Your task to perform on an android device: show emergency info Image 0: 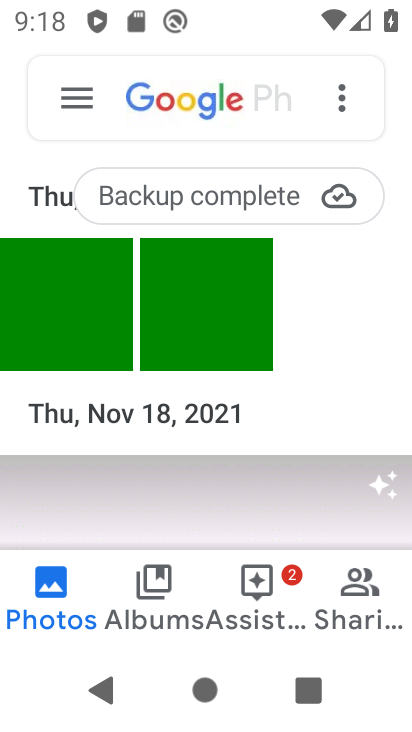
Step 0: press home button
Your task to perform on an android device: show emergency info Image 1: 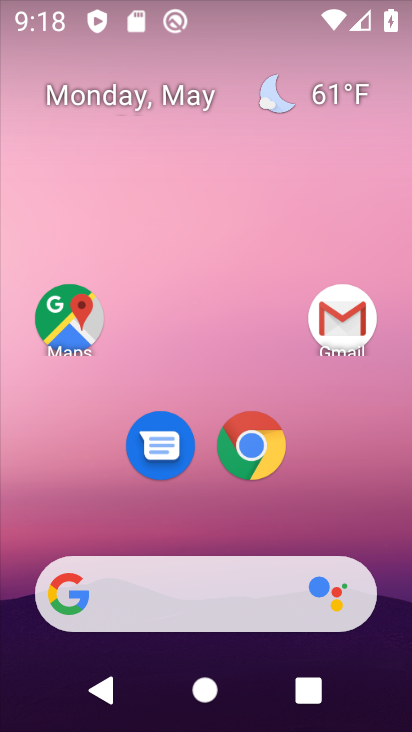
Step 1: drag from (372, 517) to (398, 118)
Your task to perform on an android device: show emergency info Image 2: 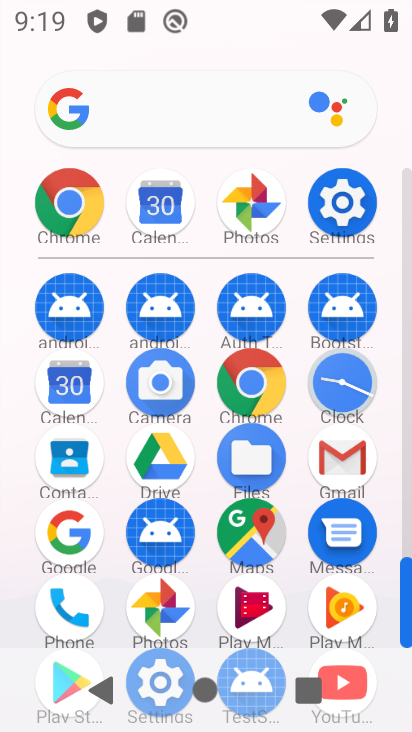
Step 2: click (338, 198)
Your task to perform on an android device: show emergency info Image 3: 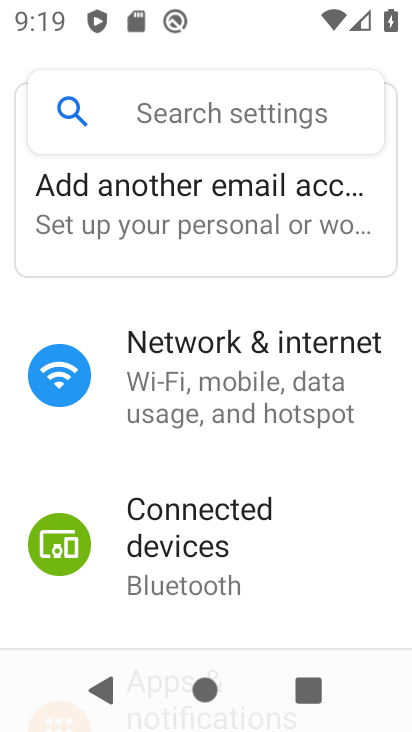
Step 3: drag from (360, 564) to (376, 462)
Your task to perform on an android device: show emergency info Image 4: 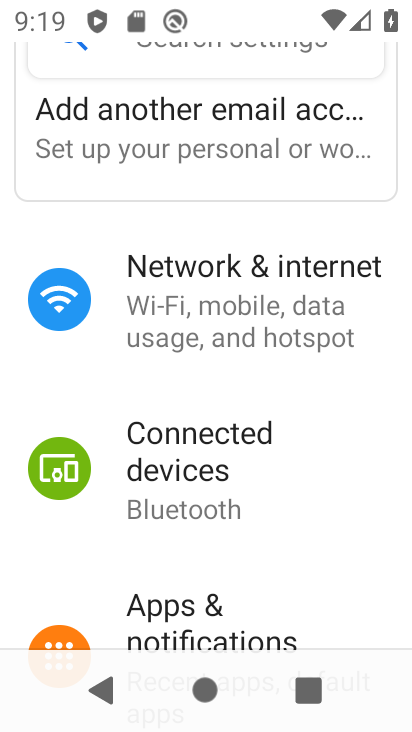
Step 4: drag from (355, 575) to (359, 436)
Your task to perform on an android device: show emergency info Image 5: 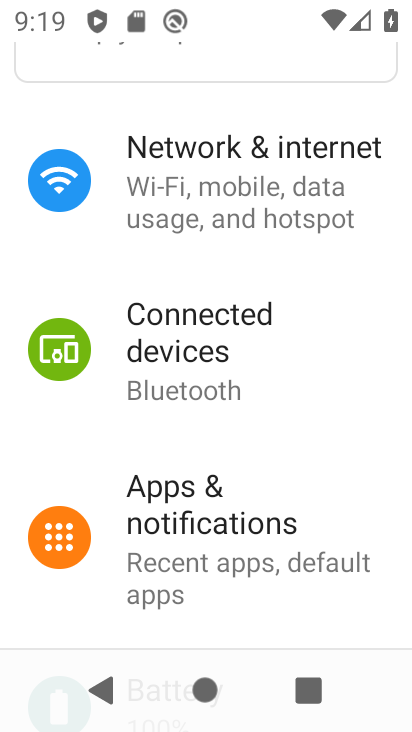
Step 5: drag from (352, 608) to (350, 437)
Your task to perform on an android device: show emergency info Image 6: 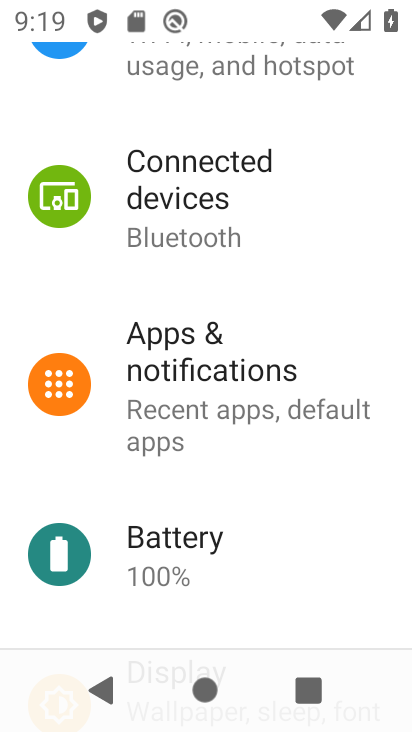
Step 6: drag from (339, 563) to (344, 439)
Your task to perform on an android device: show emergency info Image 7: 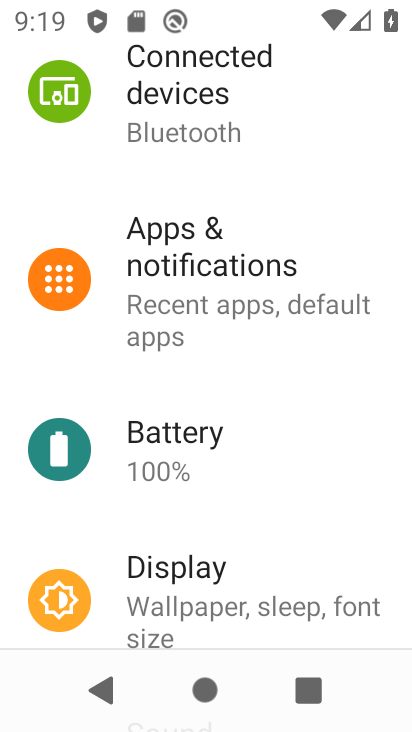
Step 7: drag from (349, 560) to (344, 476)
Your task to perform on an android device: show emergency info Image 8: 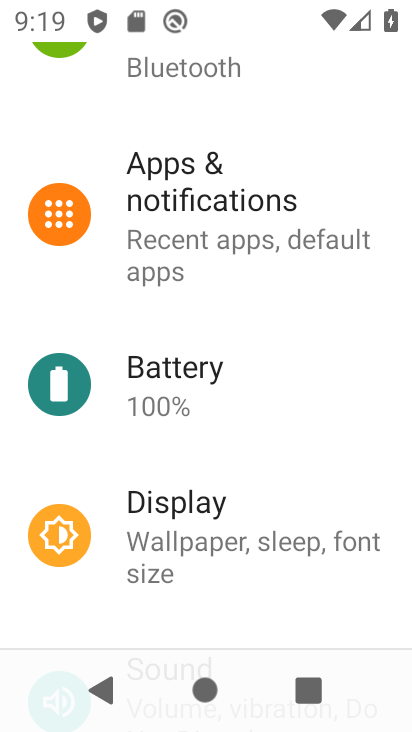
Step 8: drag from (378, 488) to (376, 371)
Your task to perform on an android device: show emergency info Image 9: 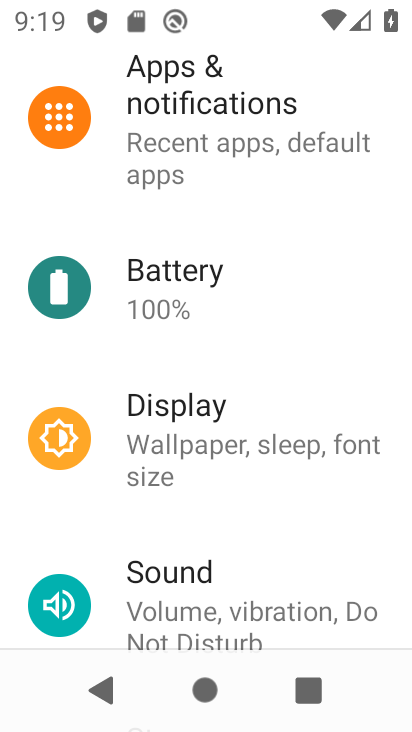
Step 9: drag from (391, 515) to (387, 406)
Your task to perform on an android device: show emergency info Image 10: 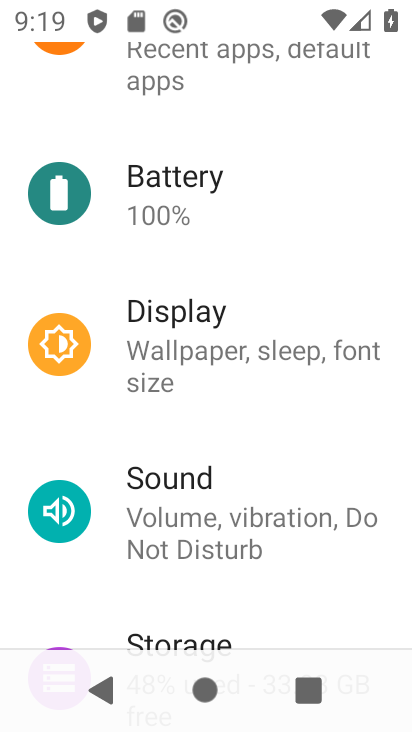
Step 10: drag from (400, 484) to (386, 347)
Your task to perform on an android device: show emergency info Image 11: 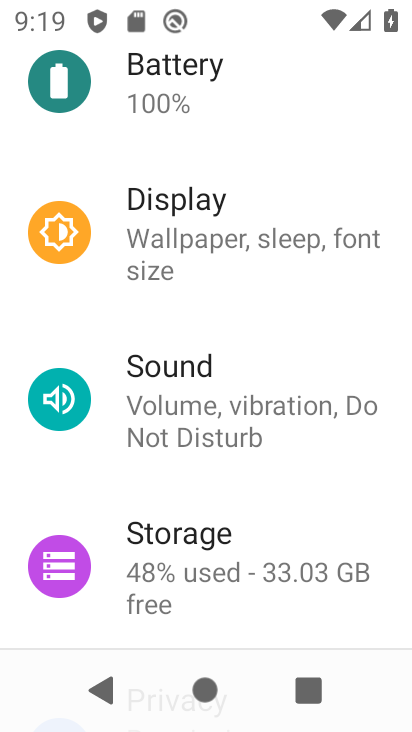
Step 11: drag from (355, 512) to (356, 336)
Your task to perform on an android device: show emergency info Image 12: 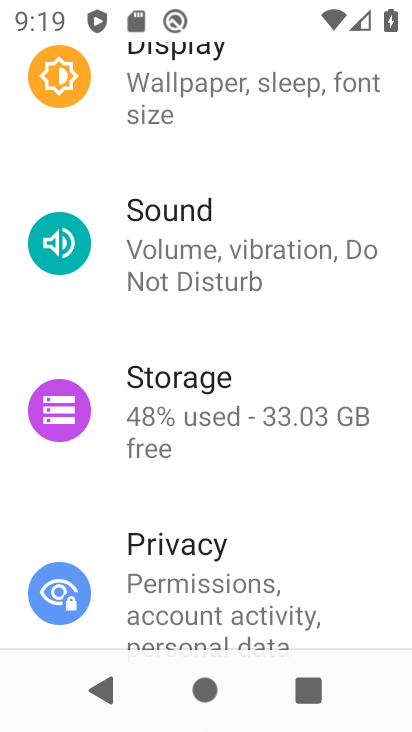
Step 12: drag from (350, 588) to (359, 388)
Your task to perform on an android device: show emergency info Image 13: 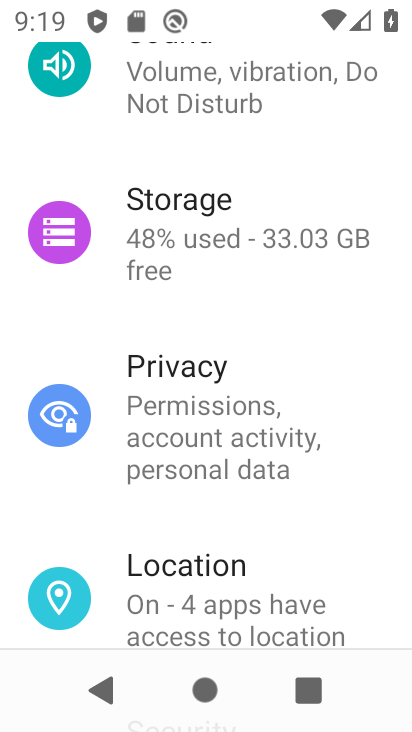
Step 13: drag from (372, 576) to (370, 404)
Your task to perform on an android device: show emergency info Image 14: 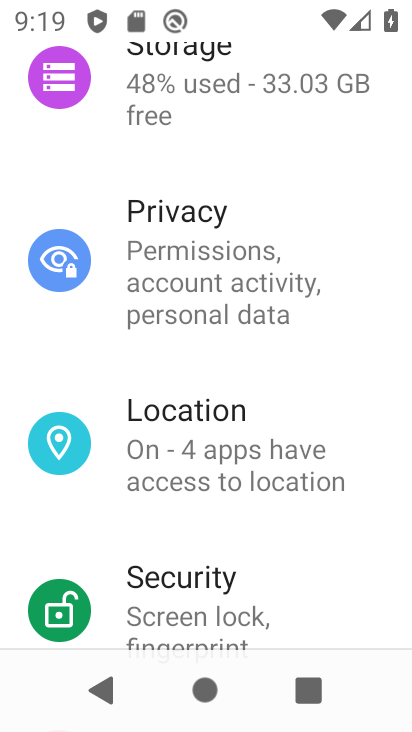
Step 14: drag from (341, 586) to (348, 406)
Your task to perform on an android device: show emergency info Image 15: 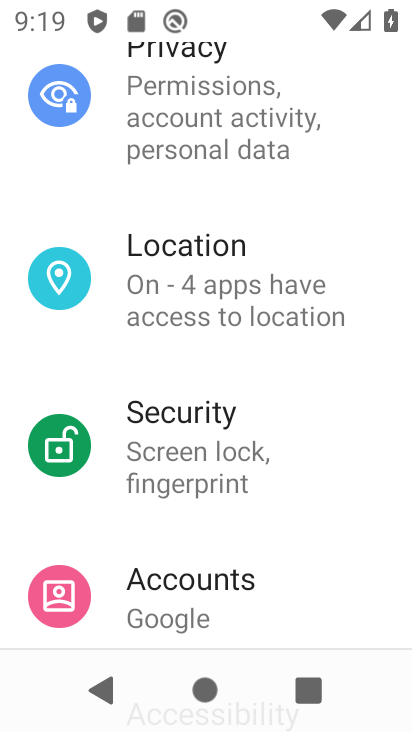
Step 15: drag from (338, 563) to (338, 324)
Your task to perform on an android device: show emergency info Image 16: 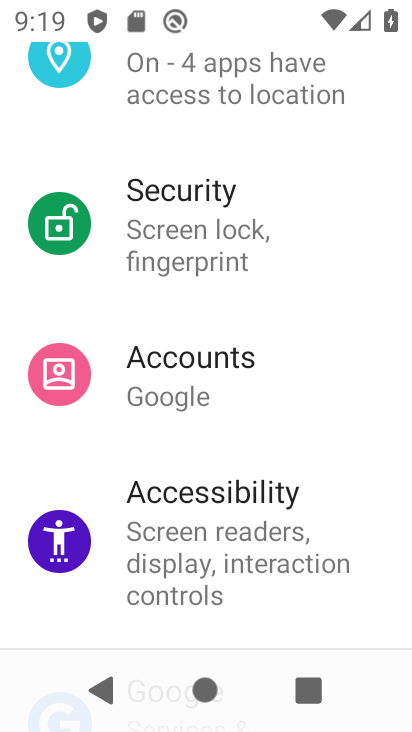
Step 16: drag from (341, 600) to (343, 414)
Your task to perform on an android device: show emergency info Image 17: 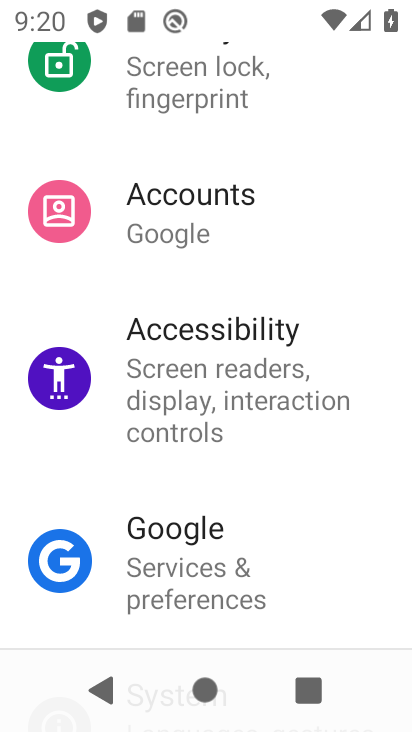
Step 17: drag from (346, 560) to (346, 392)
Your task to perform on an android device: show emergency info Image 18: 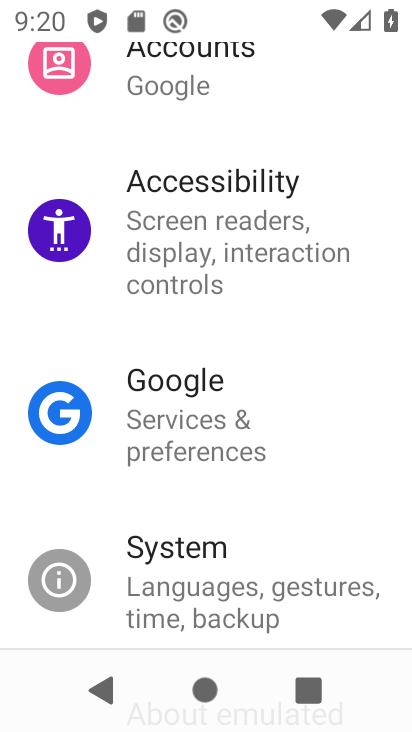
Step 18: drag from (346, 618) to (352, 414)
Your task to perform on an android device: show emergency info Image 19: 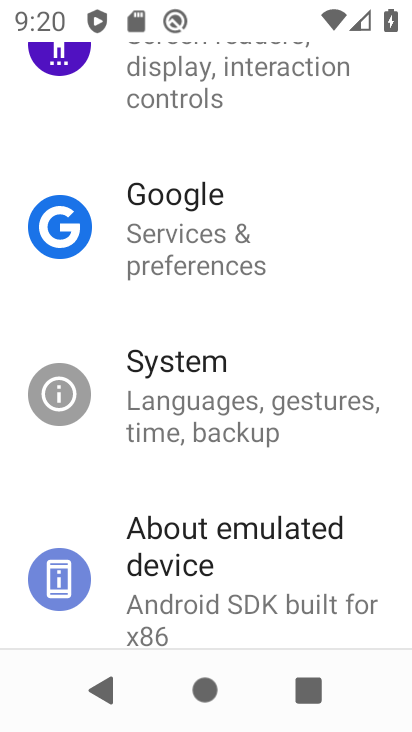
Step 19: drag from (342, 585) to (344, 384)
Your task to perform on an android device: show emergency info Image 20: 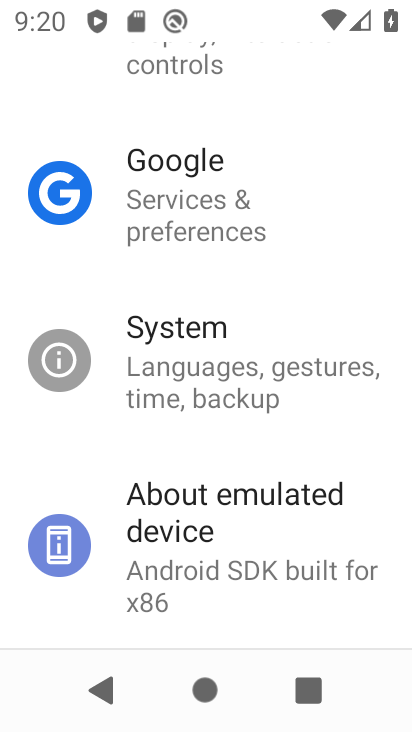
Step 20: click (274, 537)
Your task to perform on an android device: show emergency info Image 21: 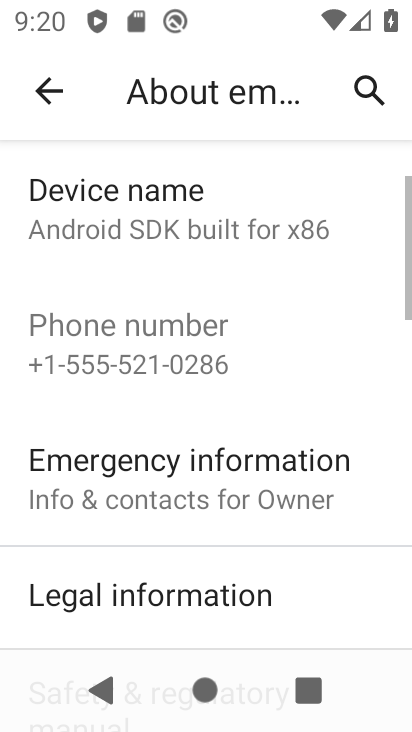
Step 21: click (257, 491)
Your task to perform on an android device: show emergency info Image 22: 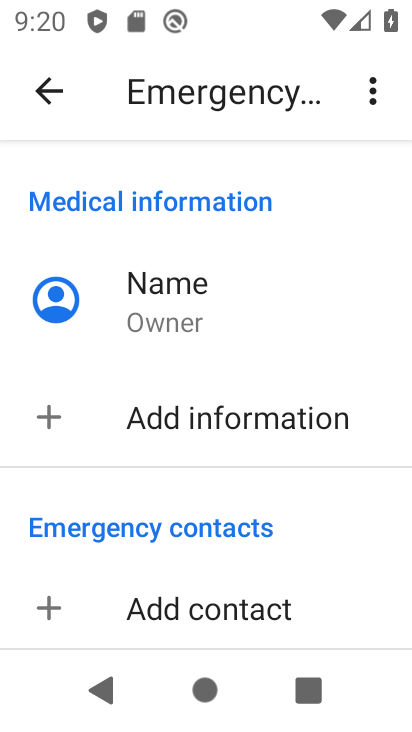
Step 22: task complete